Your task to perform on an android device: choose inbox layout in the gmail app Image 0: 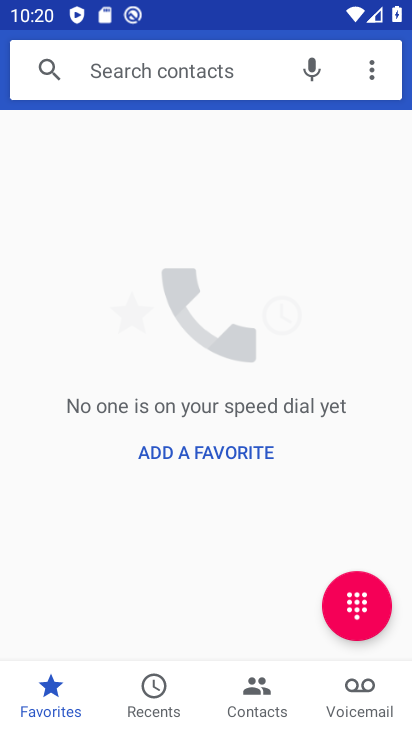
Step 0: press home button
Your task to perform on an android device: choose inbox layout in the gmail app Image 1: 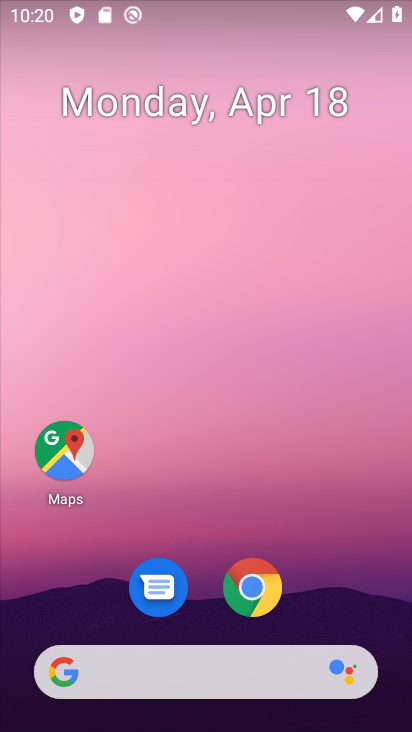
Step 1: drag from (366, 569) to (329, 87)
Your task to perform on an android device: choose inbox layout in the gmail app Image 2: 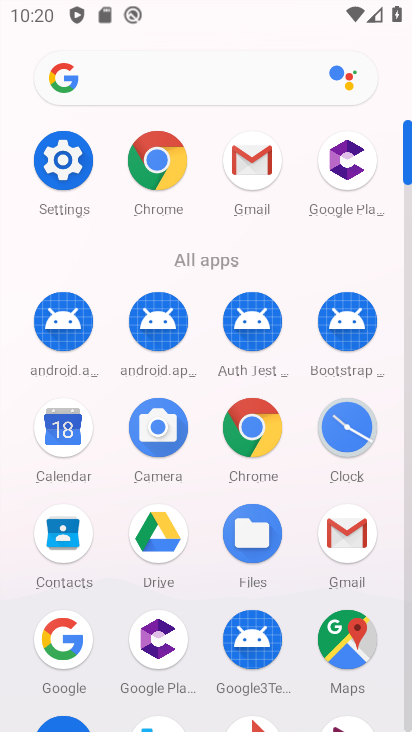
Step 2: click (346, 544)
Your task to perform on an android device: choose inbox layout in the gmail app Image 3: 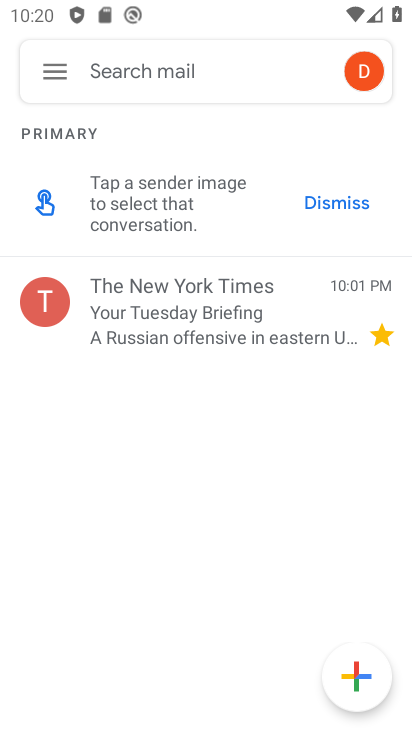
Step 3: click (53, 87)
Your task to perform on an android device: choose inbox layout in the gmail app Image 4: 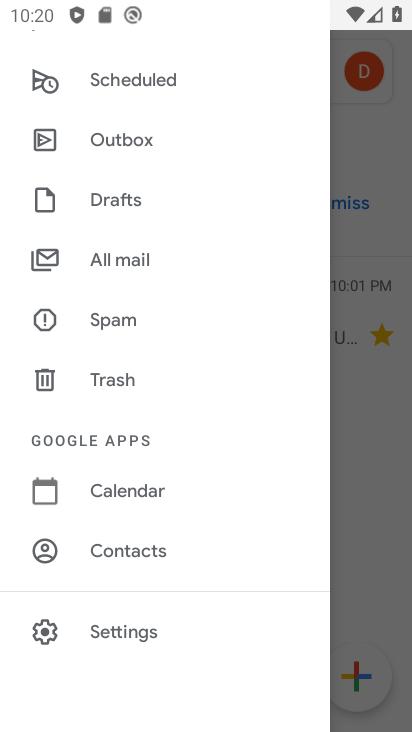
Step 4: click (108, 624)
Your task to perform on an android device: choose inbox layout in the gmail app Image 5: 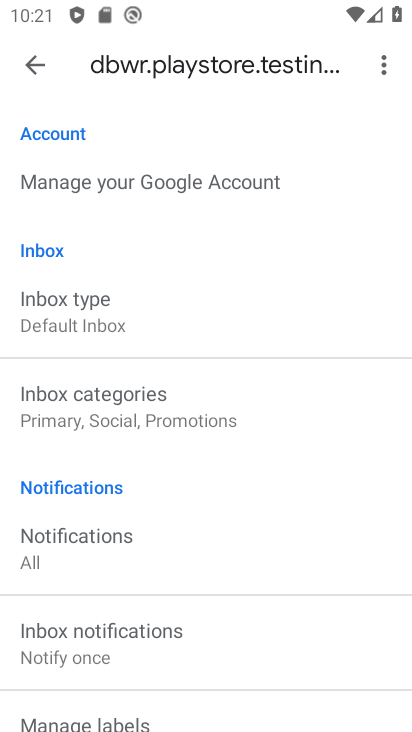
Step 5: click (74, 325)
Your task to perform on an android device: choose inbox layout in the gmail app Image 6: 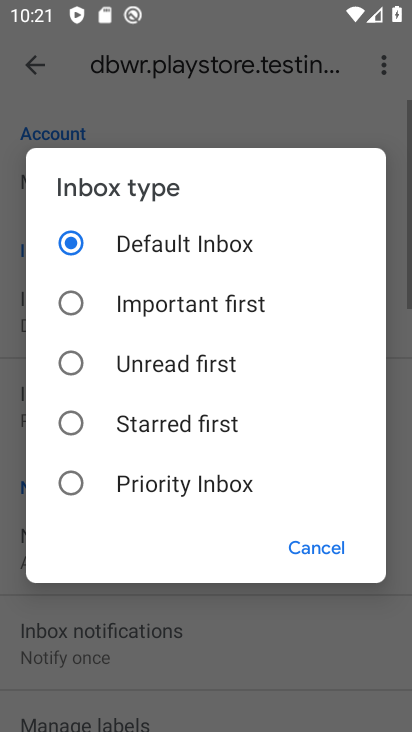
Step 6: click (197, 366)
Your task to perform on an android device: choose inbox layout in the gmail app Image 7: 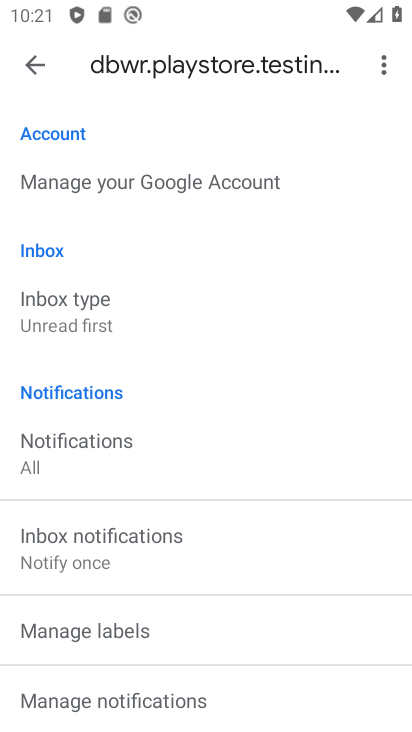
Step 7: task complete